Your task to perform on an android device: make emails show in primary in the gmail app Image 0: 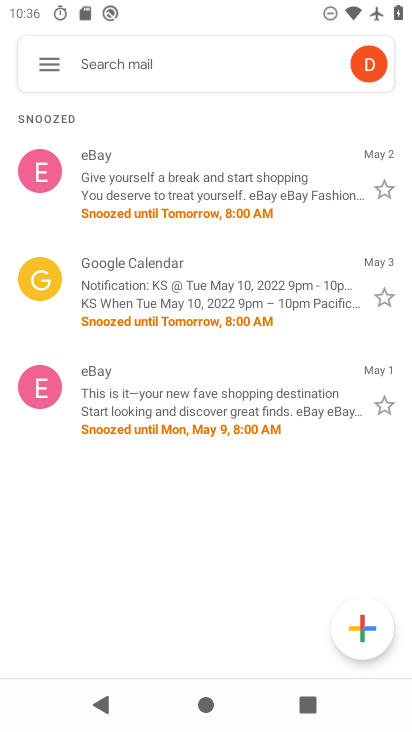
Step 0: press home button
Your task to perform on an android device: make emails show in primary in the gmail app Image 1: 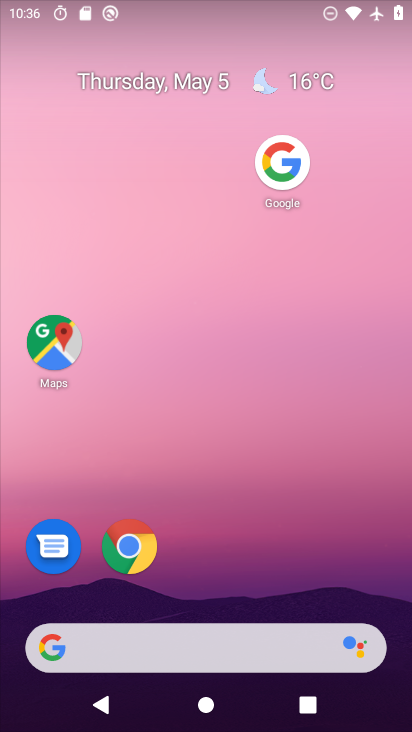
Step 1: drag from (137, 648) to (269, 33)
Your task to perform on an android device: make emails show in primary in the gmail app Image 2: 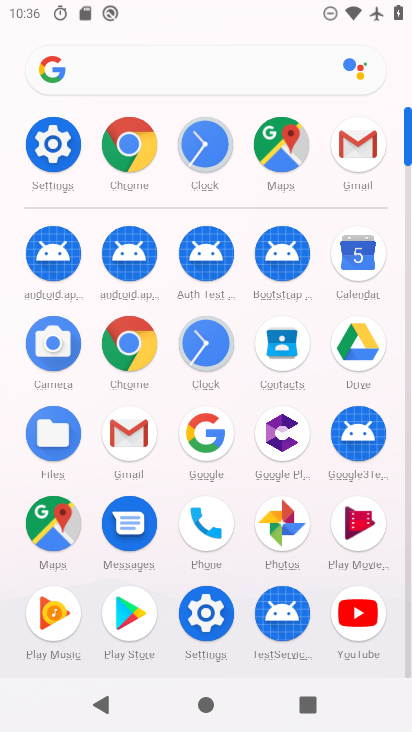
Step 2: click (359, 159)
Your task to perform on an android device: make emails show in primary in the gmail app Image 3: 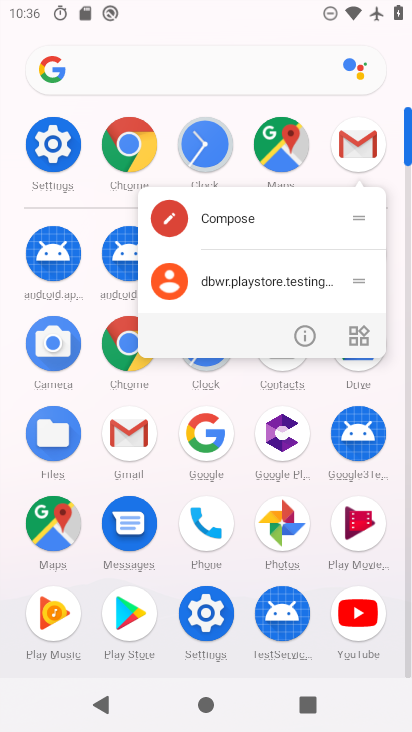
Step 3: click (353, 138)
Your task to perform on an android device: make emails show in primary in the gmail app Image 4: 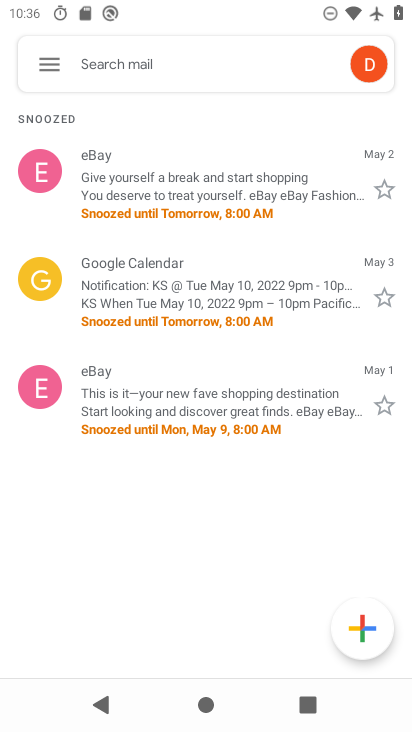
Step 4: click (50, 67)
Your task to perform on an android device: make emails show in primary in the gmail app Image 5: 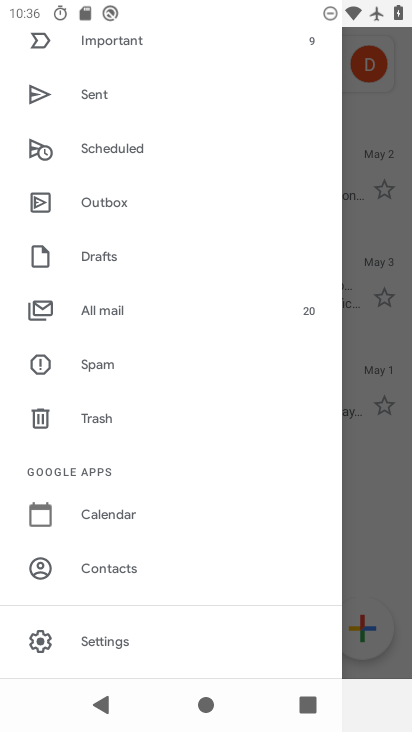
Step 5: click (114, 636)
Your task to perform on an android device: make emails show in primary in the gmail app Image 6: 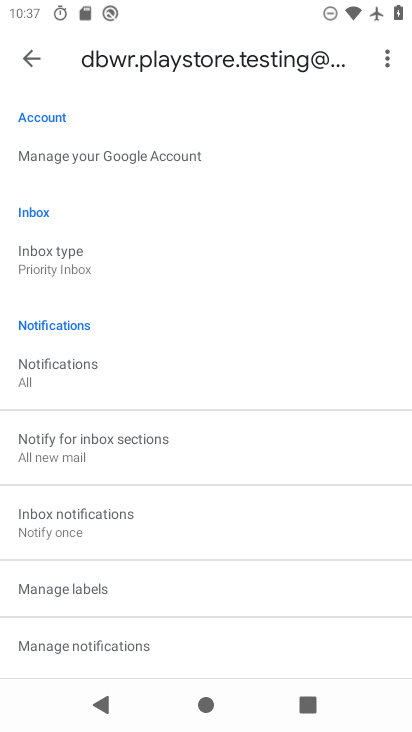
Step 6: task complete